Your task to perform on an android device: Go to Google Image 0: 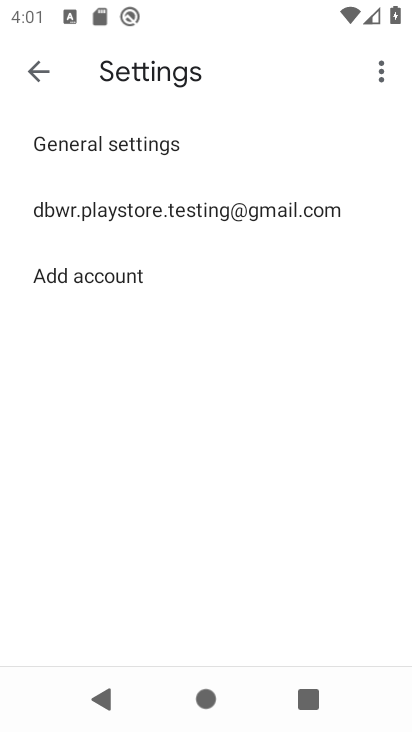
Step 0: press home button
Your task to perform on an android device: Go to Google Image 1: 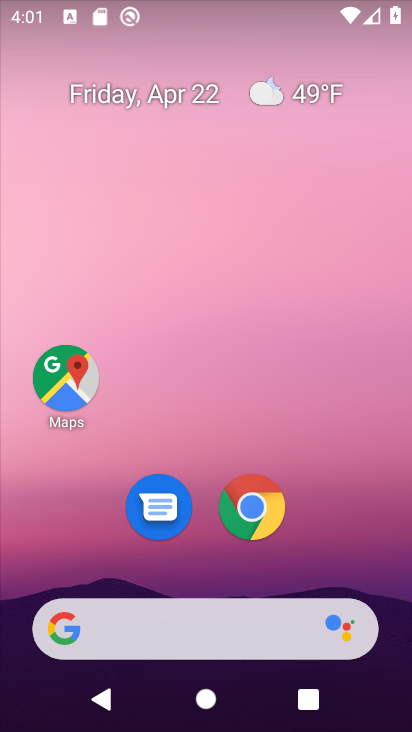
Step 1: click (243, 502)
Your task to perform on an android device: Go to Google Image 2: 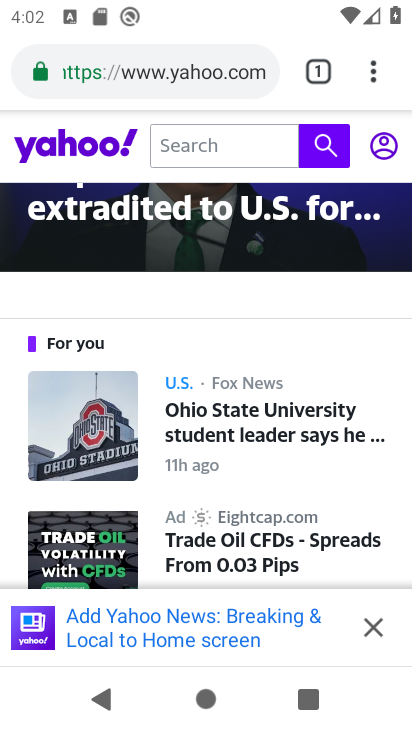
Step 2: task complete